Your task to perform on an android device: snooze an email in the gmail app Image 0: 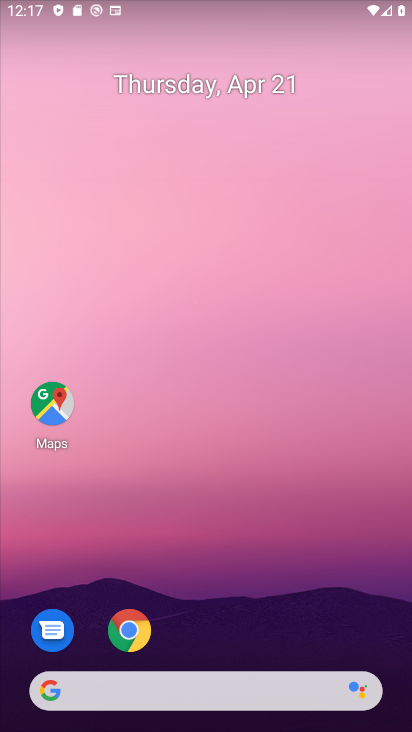
Step 0: drag from (339, 637) to (316, 122)
Your task to perform on an android device: snooze an email in the gmail app Image 1: 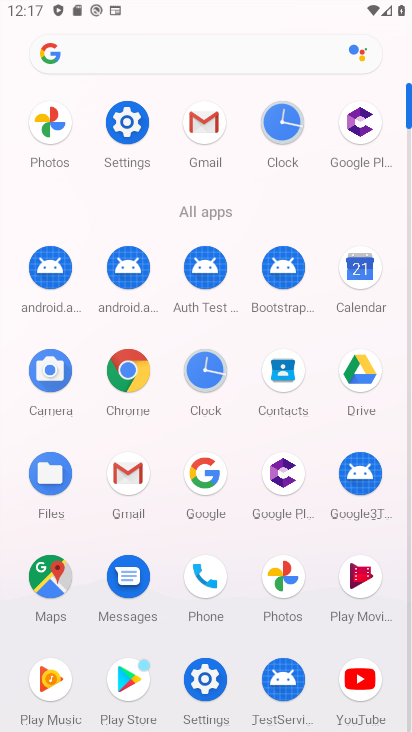
Step 1: click (130, 502)
Your task to perform on an android device: snooze an email in the gmail app Image 2: 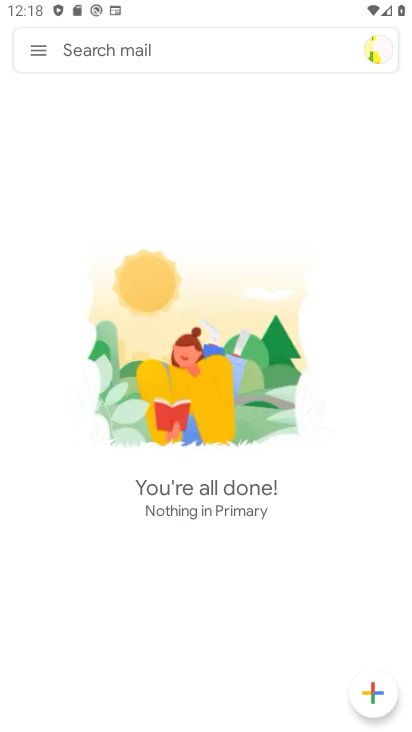
Step 2: click (43, 55)
Your task to perform on an android device: snooze an email in the gmail app Image 3: 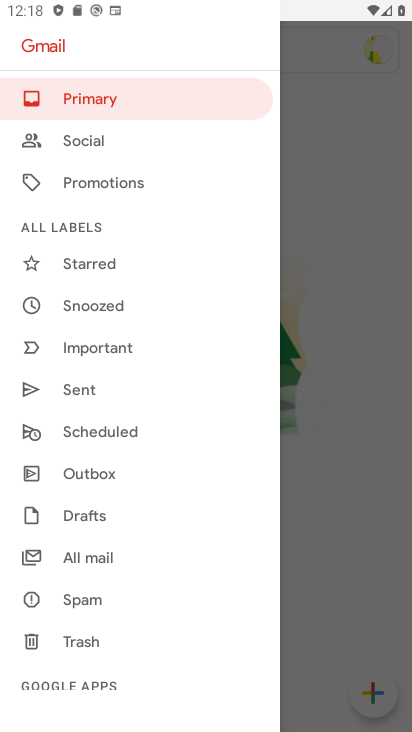
Step 3: click (126, 545)
Your task to perform on an android device: snooze an email in the gmail app Image 4: 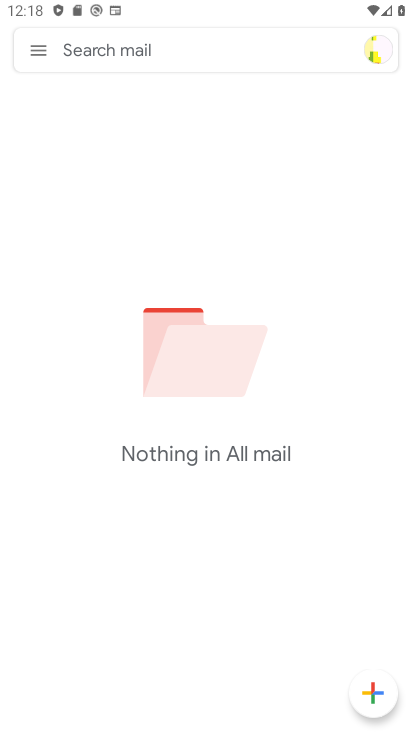
Step 4: task complete